Your task to perform on an android device: Show me popular games on the Play Store Image 0: 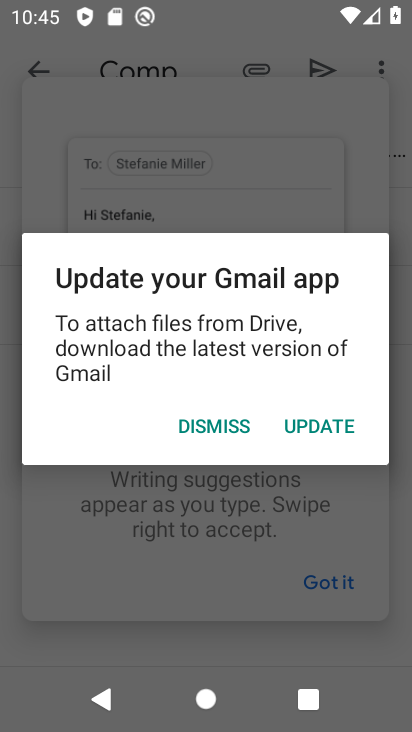
Step 0: press home button
Your task to perform on an android device: Show me popular games on the Play Store Image 1: 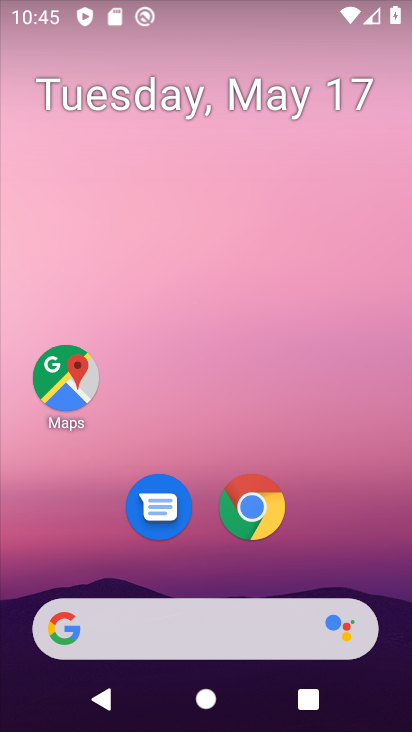
Step 1: drag from (386, 551) to (323, 170)
Your task to perform on an android device: Show me popular games on the Play Store Image 2: 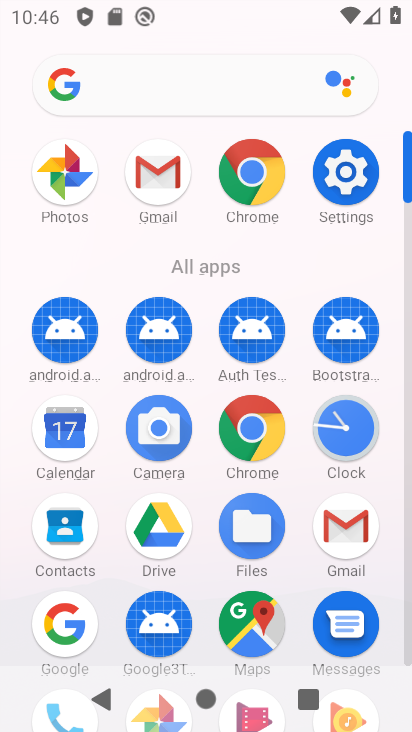
Step 2: drag from (212, 568) to (184, 309)
Your task to perform on an android device: Show me popular games on the Play Store Image 3: 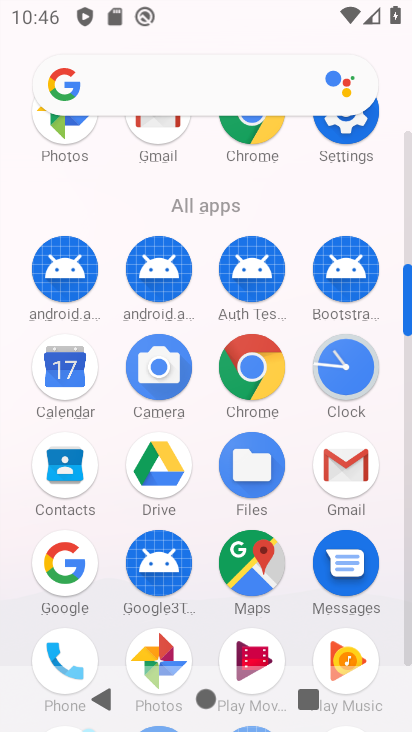
Step 3: drag from (190, 623) to (190, 395)
Your task to perform on an android device: Show me popular games on the Play Store Image 4: 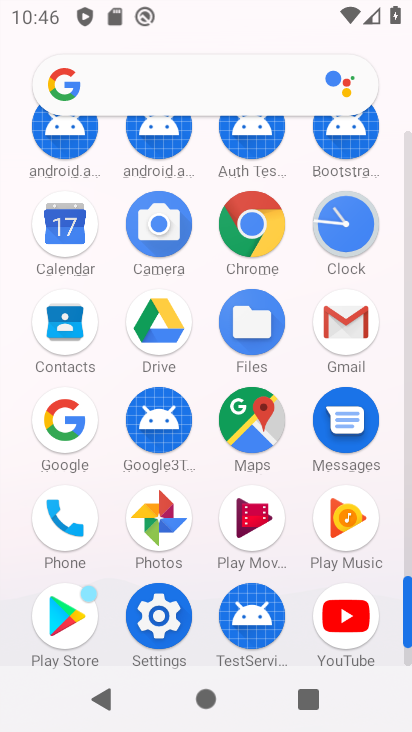
Step 4: click (56, 614)
Your task to perform on an android device: Show me popular games on the Play Store Image 5: 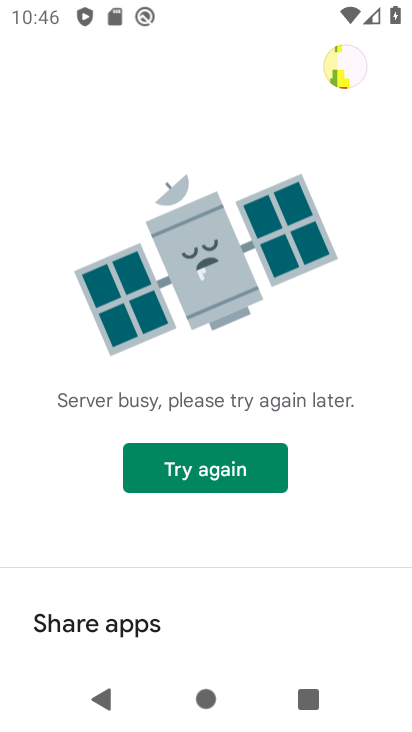
Step 5: task complete